Your task to perform on an android device: Search for sushi restaurants on Maps Image 0: 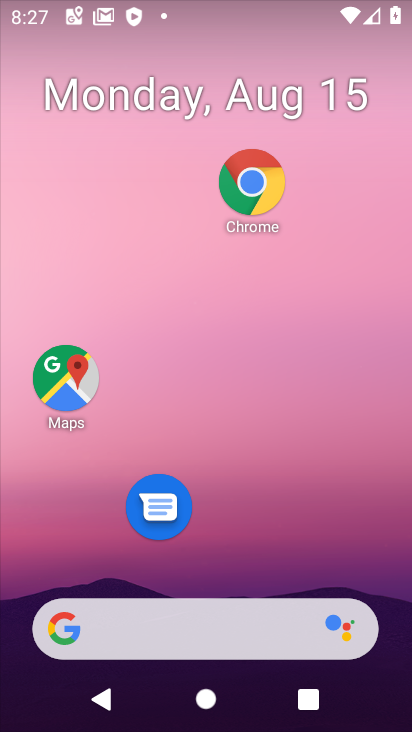
Step 0: click (42, 395)
Your task to perform on an android device: Search for sushi restaurants on Maps Image 1: 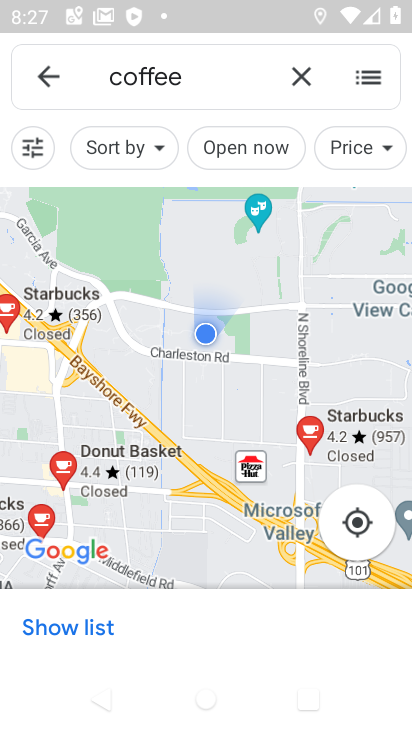
Step 1: click (291, 85)
Your task to perform on an android device: Search for sushi restaurants on Maps Image 2: 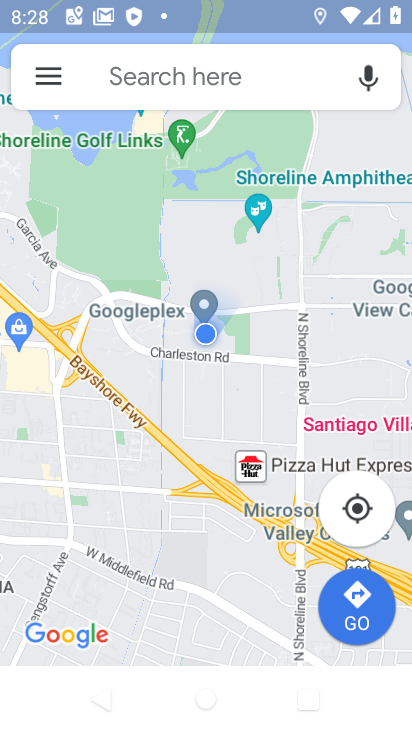
Step 2: type "sushi "
Your task to perform on an android device: Search for sushi restaurants on Maps Image 3: 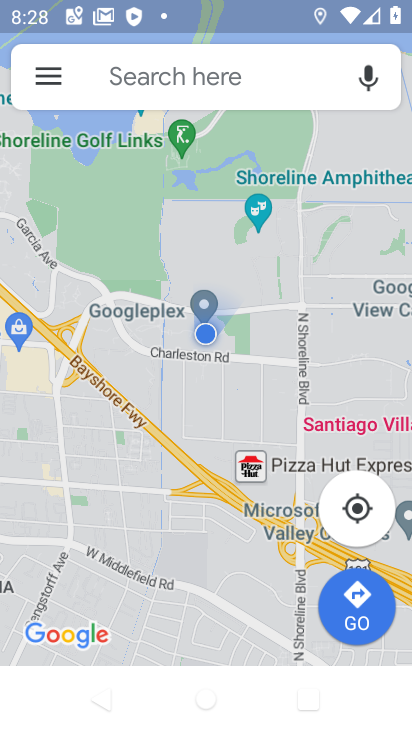
Step 3: click (171, 78)
Your task to perform on an android device: Search for sushi restaurants on Maps Image 4: 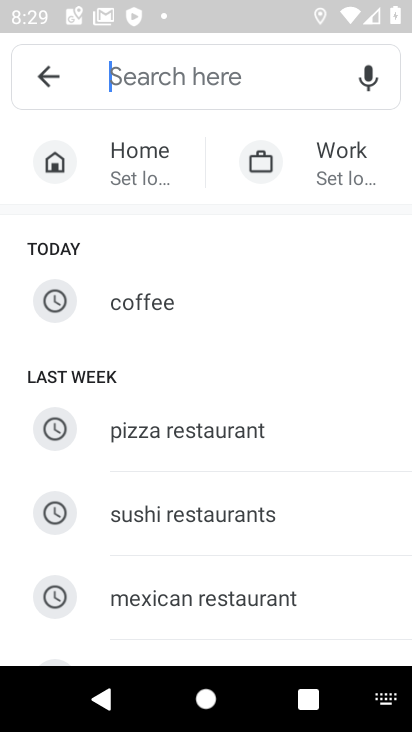
Step 4: type "sushi"
Your task to perform on an android device: Search for sushi restaurants on Maps Image 5: 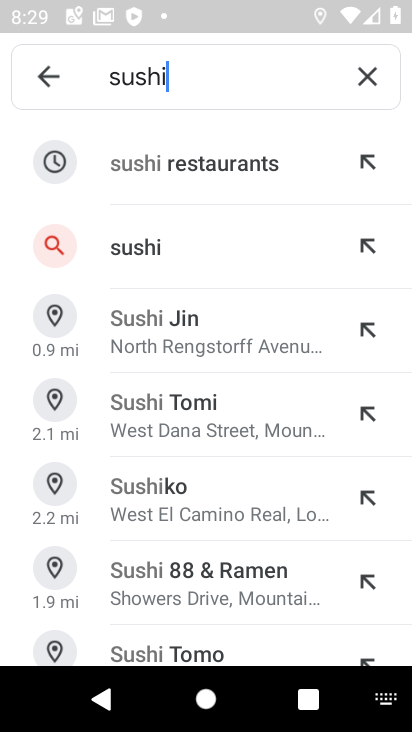
Step 5: click (213, 154)
Your task to perform on an android device: Search for sushi restaurants on Maps Image 6: 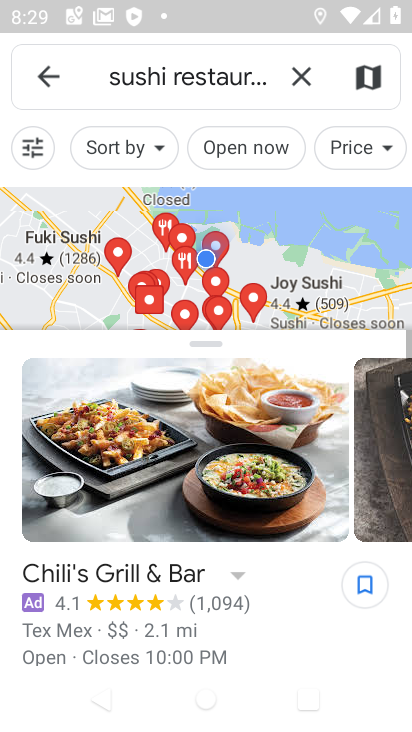
Step 6: task complete